Your task to perform on an android device: turn off javascript in the chrome app Image 0: 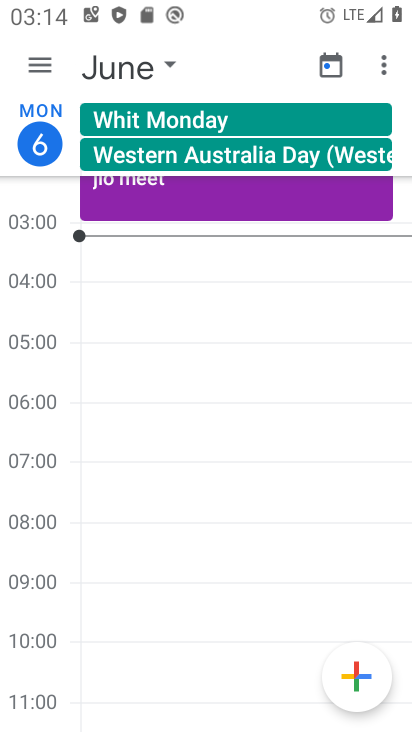
Step 0: press back button
Your task to perform on an android device: turn off javascript in the chrome app Image 1: 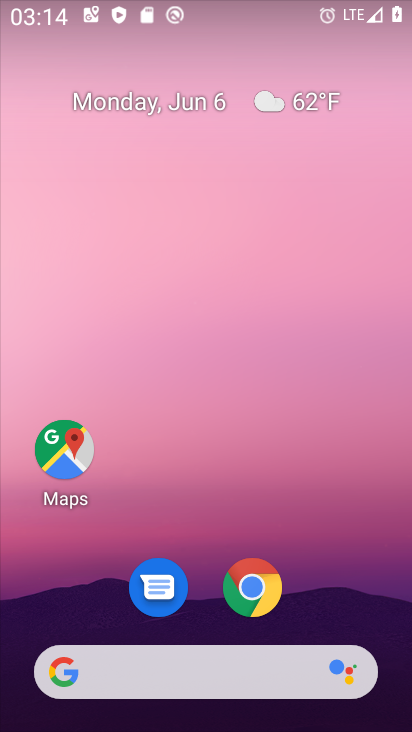
Step 1: drag from (316, 545) to (250, 64)
Your task to perform on an android device: turn off javascript in the chrome app Image 2: 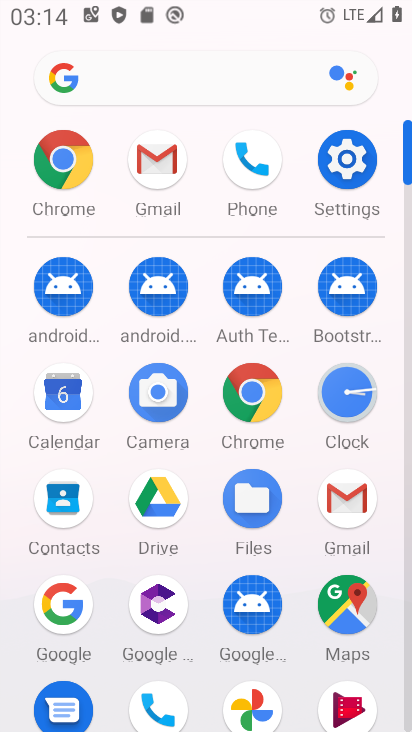
Step 2: drag from (10, 598) to (39, 271)
Your task to perform on an android device: turn off javascript in the chrome app Image 3: 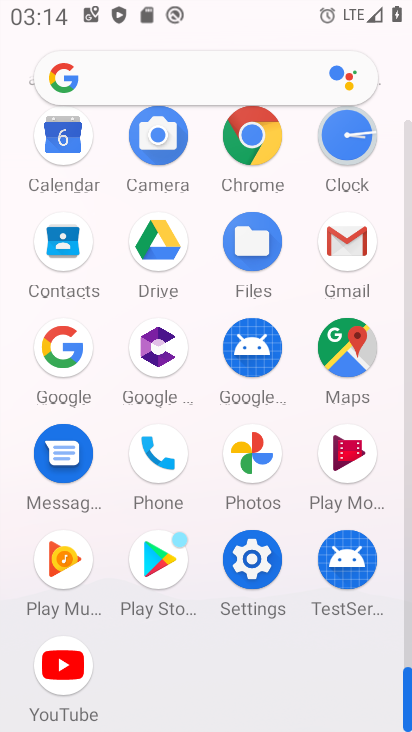
Step 3: click (251, 129)
Your task to perform on an android device: turn off javascript in the chrome app Image 4: 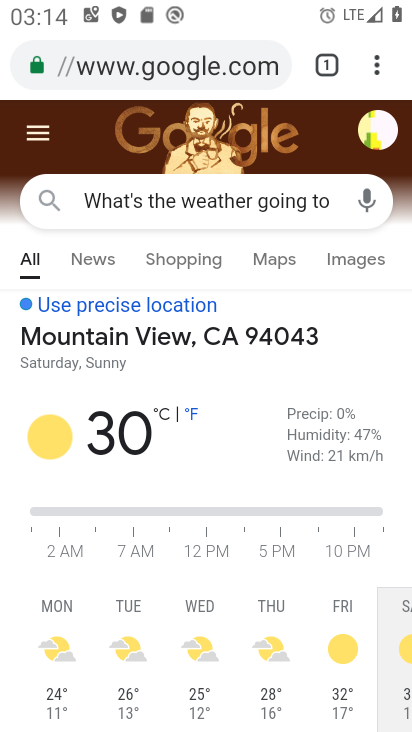
Step 4: drag from (379, 69) to (188, 624)
Your task to perform on an android device: turn off javascript in the chrome app Image 5: 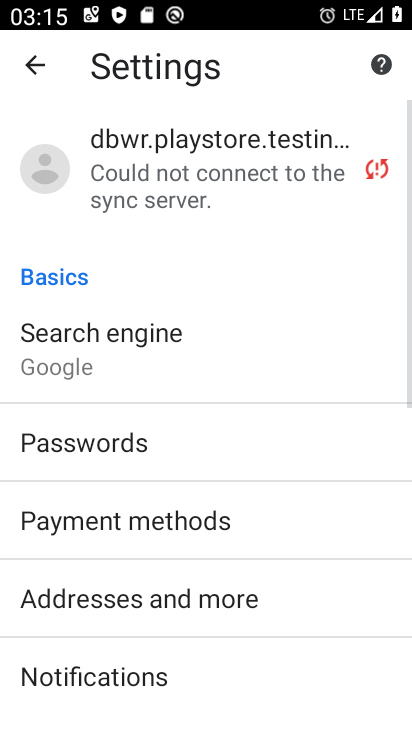
Step 5: drag from (237, 619) to (230, 216)
Your task to perform on an android device: turn off javascript in the chrome app Image 6: 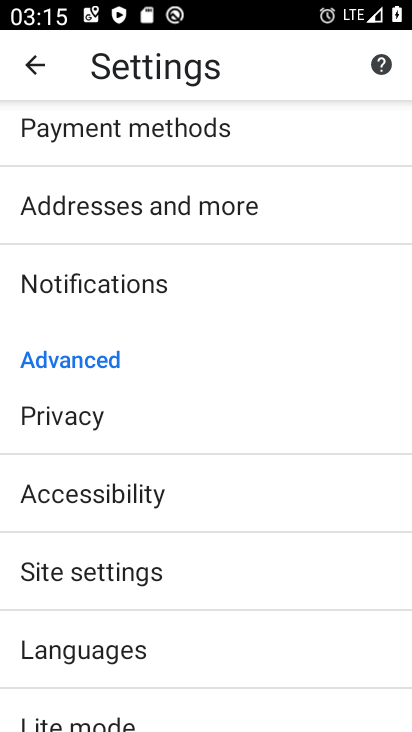
Step 6: click (133, 649)
Your task to perform on an android device: turn off javascript in the chrome app Image 7: 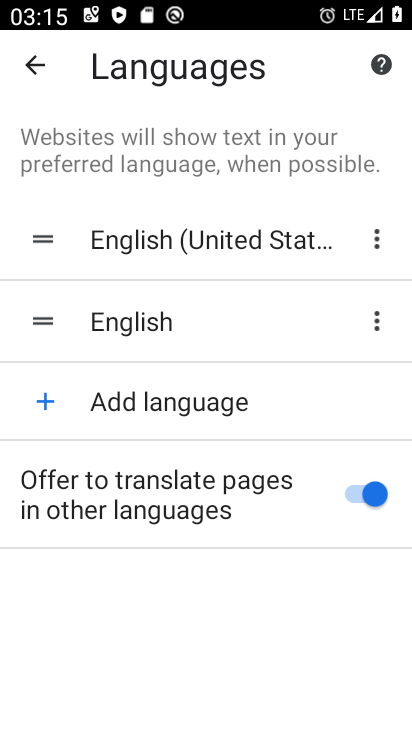
Step 7: click (35, 63)
Your task to perform on an android device: turn off javascript in the chrome app Image 8: 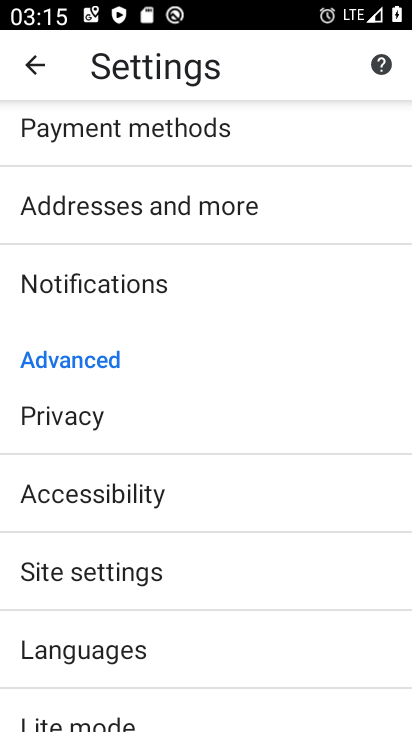
Step 8: drag from (198, 254) to (192, 607)
Your task to perform on an android device: turn off javascript in the chrome app Image 9: 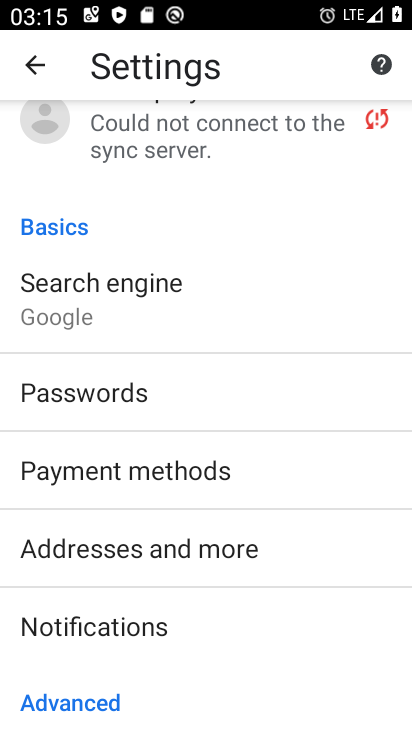
Step 9: click (28, 69)
Your task to perform on an android device: turn off javascript in the chrome app Image 10: 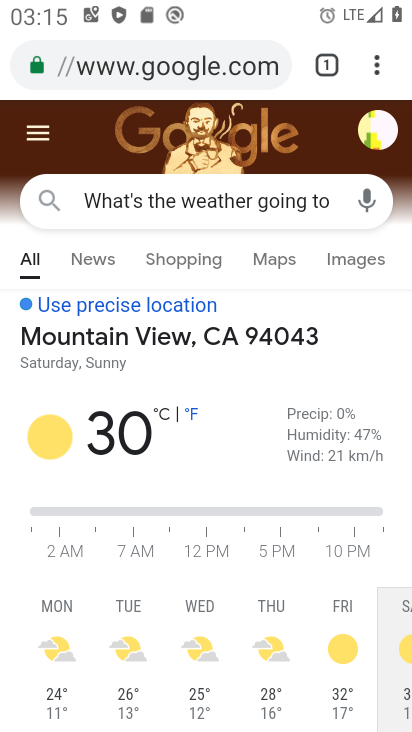
Step 10: drag from (373, 58) to (187, 645)
Your task to perform on an android device: turn off javascript in the chrome app Image 11: 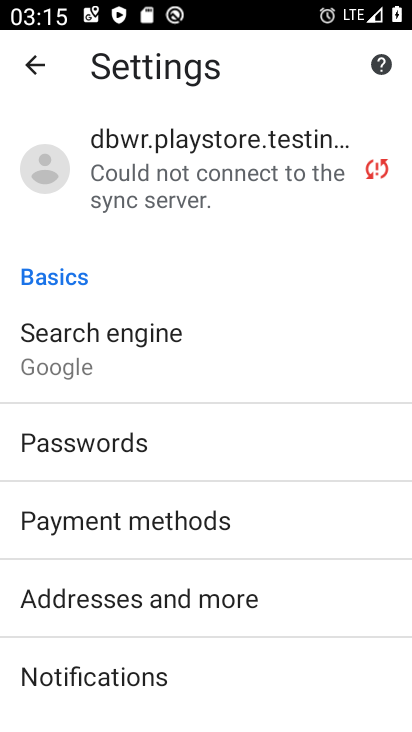
Step 11: drag from (237, 622) to (237, 298)
Your task to perform on an android device: turn off javascript in the chrome app Image 12: 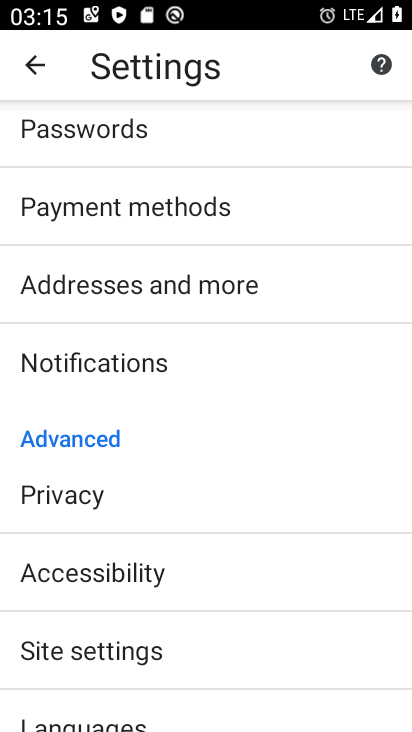
Step 12: click (139, 660)
Your task to perform on an android device: turn off javascript in the chrome app Image 13: 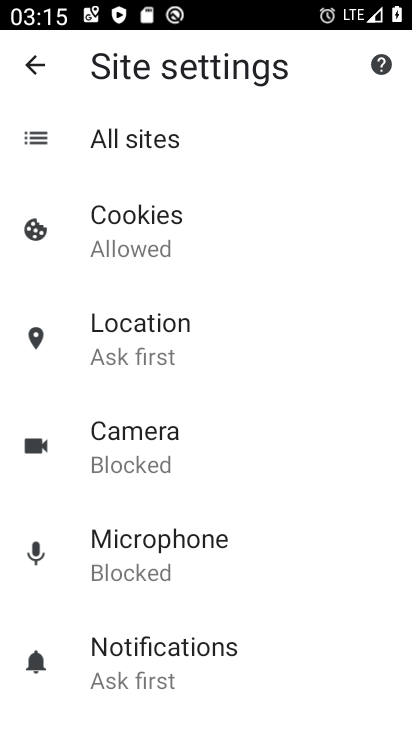
Step 13: drag from (188, 654) to (188, 272)
Your task to perform on an android device: turn off javascript in the chrome app Image 14: 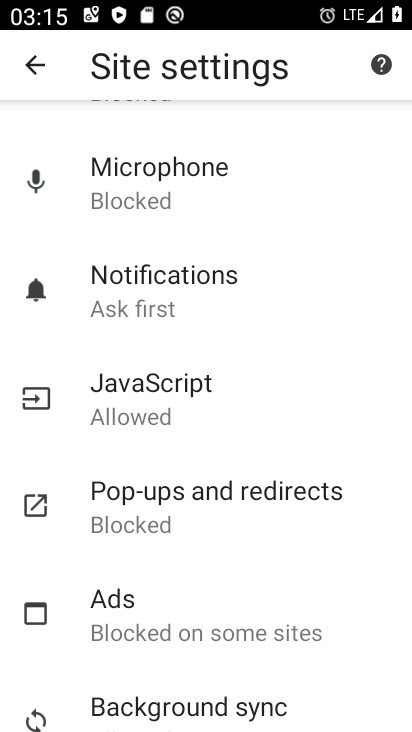
Step 14: click (142, 520)
Your task to perform on an android device: turn off javascript in the chrome app Image 15: 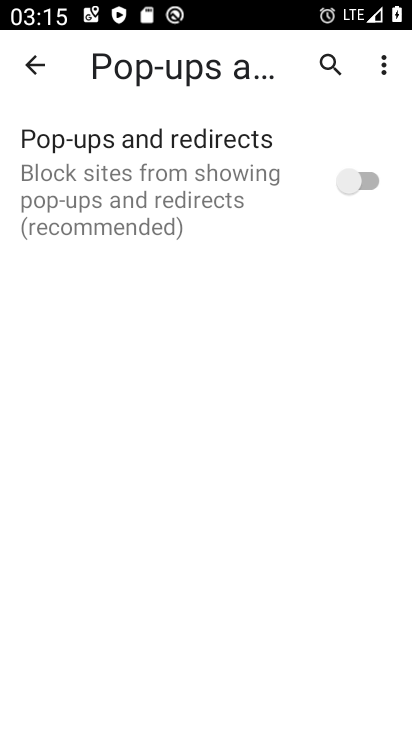
Step 15: task complete